Your task to perform on an android device: Open calendar and show me the third week of next month Image 0: 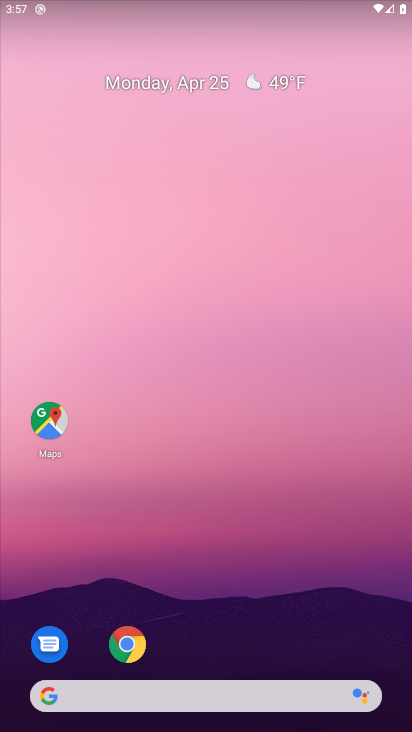
Step 0: drag from (277, 617) to (197, 188)
Your task to perform on an android device: Open calendar and show me the third week of next month Image 1: 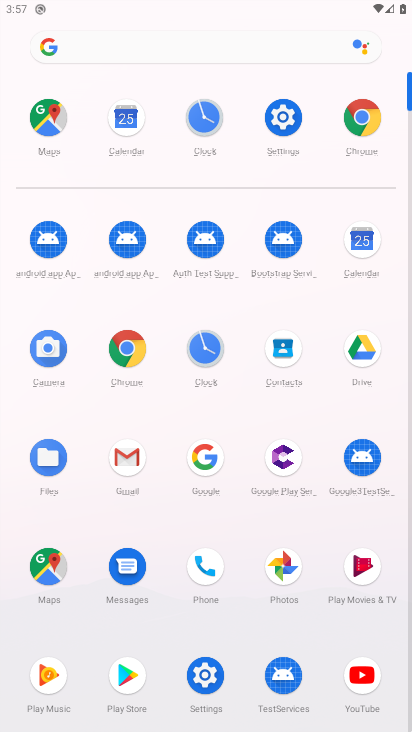
Step 1: click (364, 251)
Your task to perform on an android device: Open calendar and show me the third week of next month Image 2: 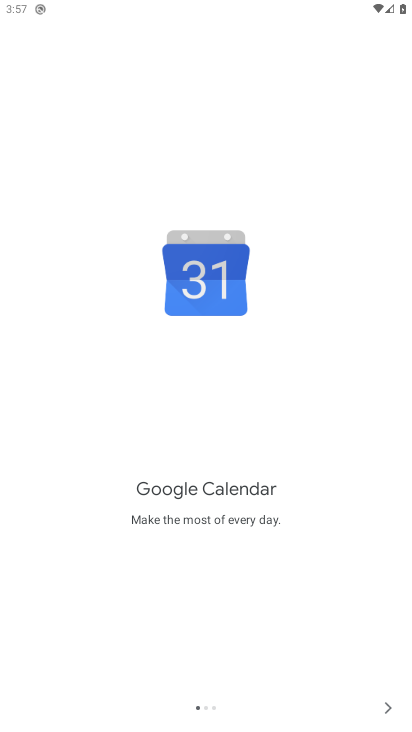
Step 2: click (389, 701)
Your task to perform on an android device: Open calendar and show me the third week of next month Image 3: 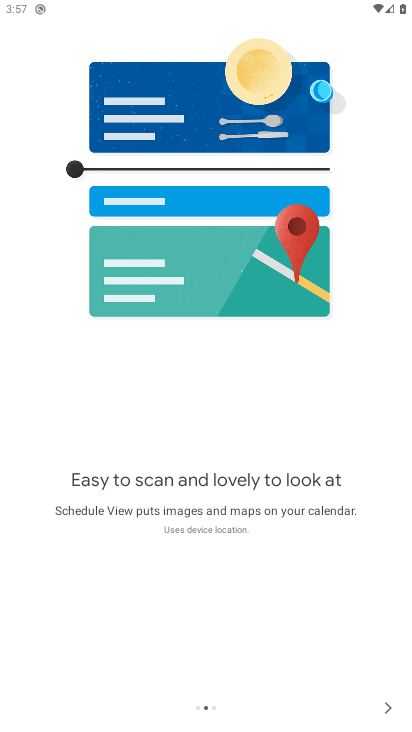
Step 3: click (389, 701)
Your task to perform on an android device: Open calendar and show me the third week of next month Image 4: 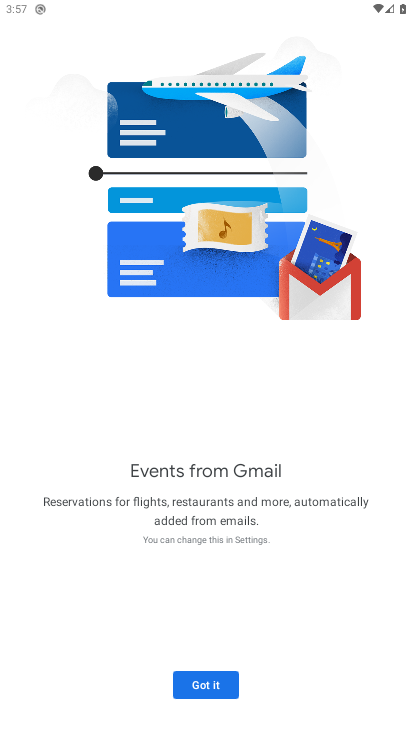
Step 4: click (389, 701)
Your task to perform on an android device: Open calendar and show me the third week of next month Image 5: 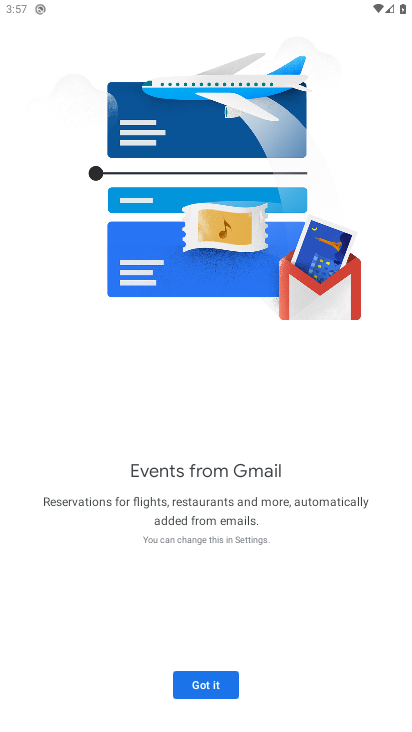
Step 5: click (225, 692)
Your task to perform on an android device: Open calendar and show me the third week of next month Image 6: 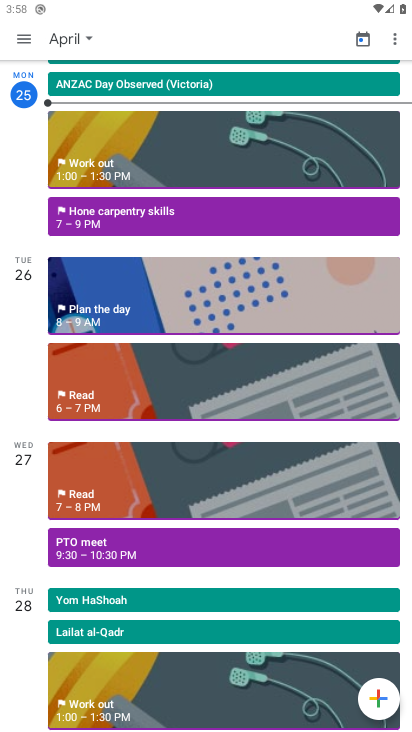
Step 6: click (88, 32)
Your task to perform on an android device: Open calendar and show me the third week of next month Image 7: 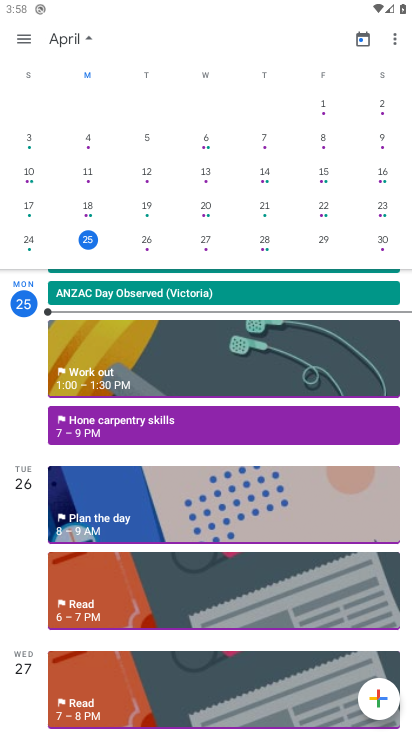
Step 7: drag from (390, 194) to (9, 116)
Your task to perform on an android device: Open calendar and show me the third week of next month Image 8: 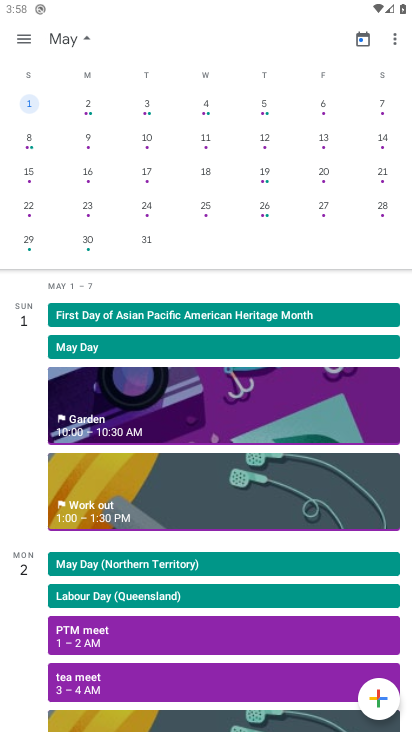
Step 8: click (204, 172)
Your task to perform on an android device: Open calendar and show me the third week of next month Image 9: 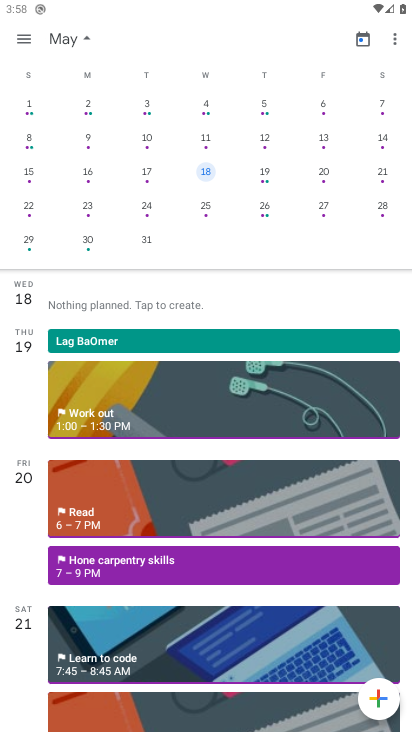
Step 9: task complete